Your task to perform on an android device: move an email to a new category in the gmail app Image 0: 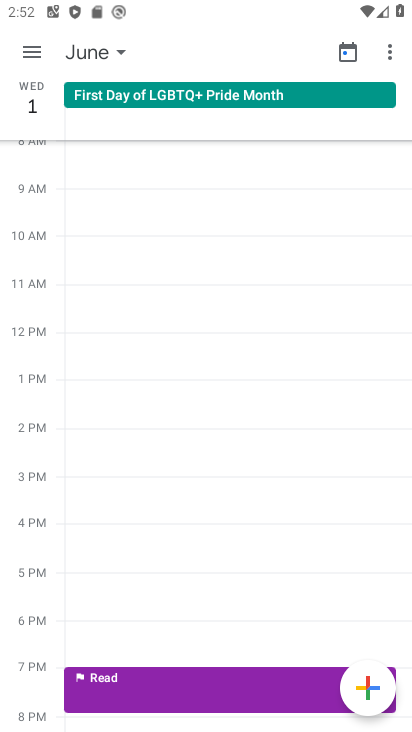
Step 0: press home button
Your task to perform on an android device: move an email to a new category in the gmail app Image 1: 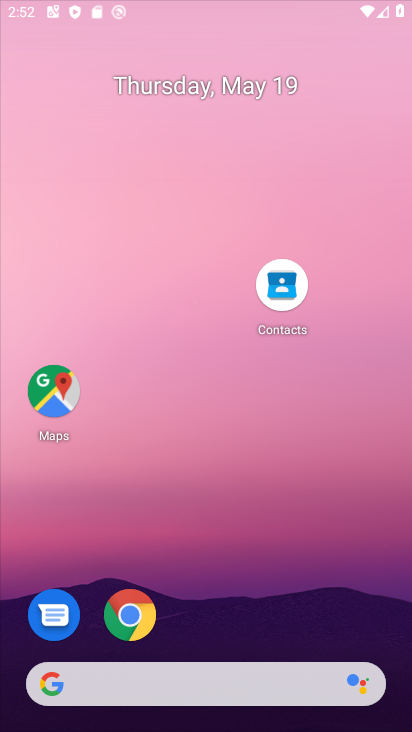
Step 1: drag from (224, 617) to (245, 165)
Your task to perform on an android device: move an email to a new category in the gmail app Image 2: 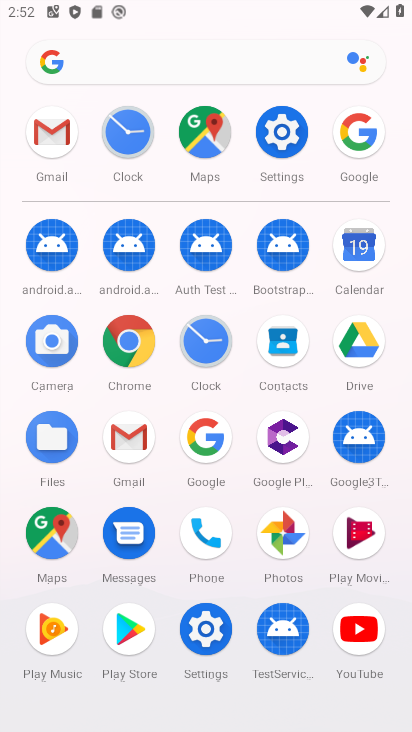
Step 2: click (133, 451)
Your task to perform on an android device: move an email to a new category in the gmail app Image 3: 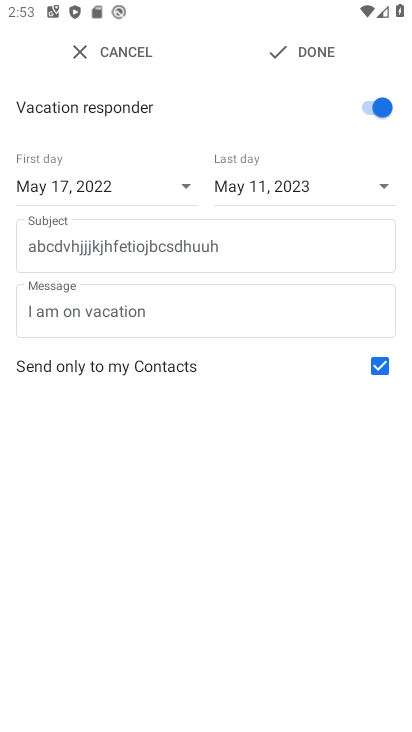
Step 3: press home button
Your task to perform on an android device: move an email to a new category in the gmail app Image 4: 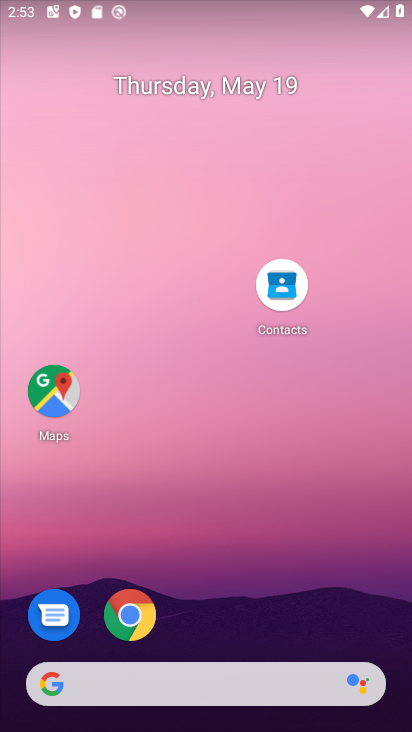
Step 4: drag from (309, 643) to (305, 118)
Your task to perform on an android device: move an email to a new category in the gmail app Image 5: 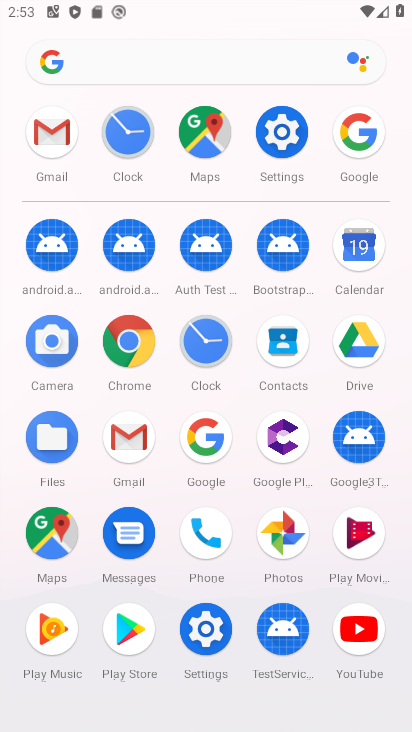
Step 5: click (133, 463)
Your task to perform on an android device: move an email to a new category in the gmail app Image 6: 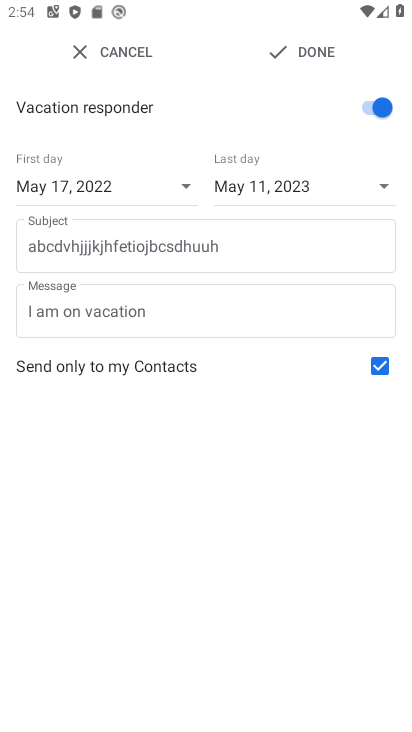
Step 6: click (92, 46)
Your task to perform on an android device: move an email to a new category in the gmail app Image 7: 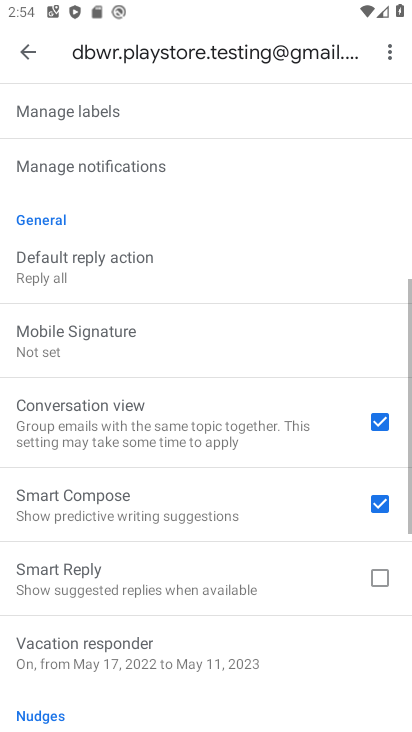
Step 7: click (20, 63)
Your task to perform on an android device: move an email to a new category in the gmail app Image 8: 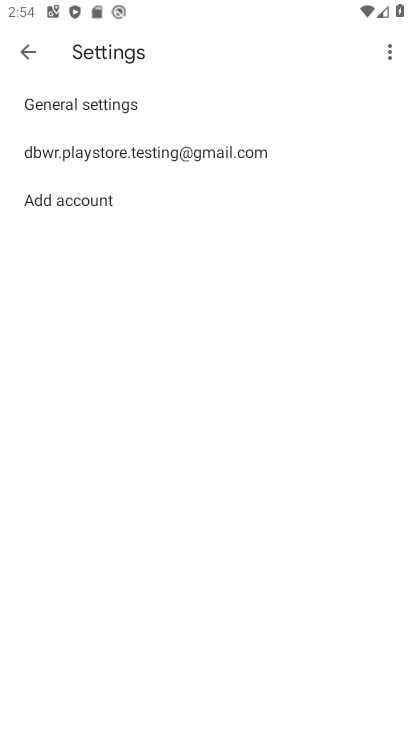
Step 8: click (31, 55)
Your task to perform on an android device: move an email to a new category in the gmail app Image 9: 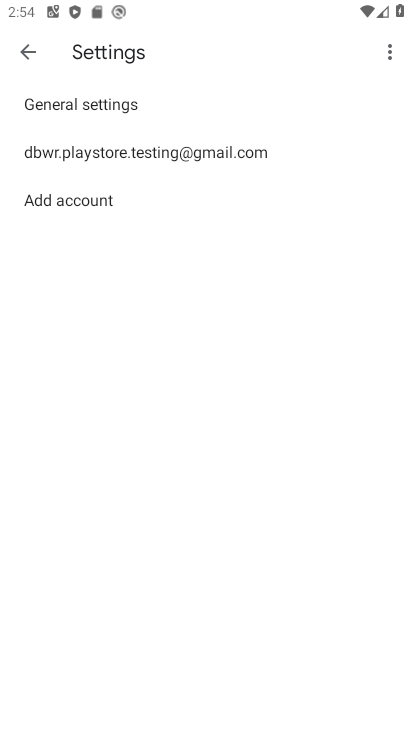
Step 9: click (31, 55)
Your task to perform on an android device: move an email to a new category in the gmail app Image 10: 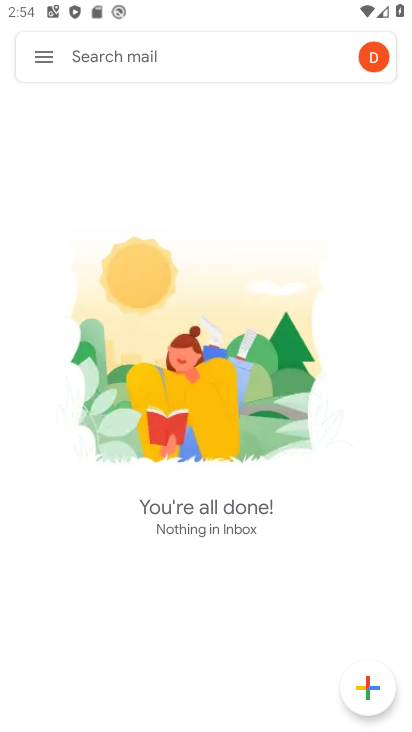
Step 10: click (42, 71)
Your task to perform on an android device: move an email to a new category in the gmail app Image 11: 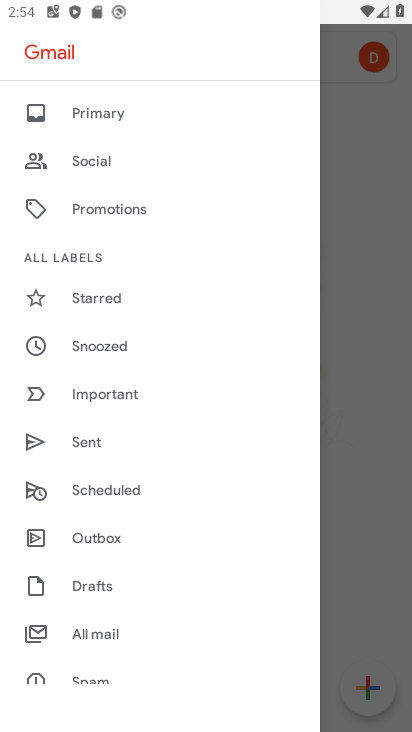
Step 11: click (106, 633)
Your task to perform on an android device: move an email to a new category in the gmail app Image 12: 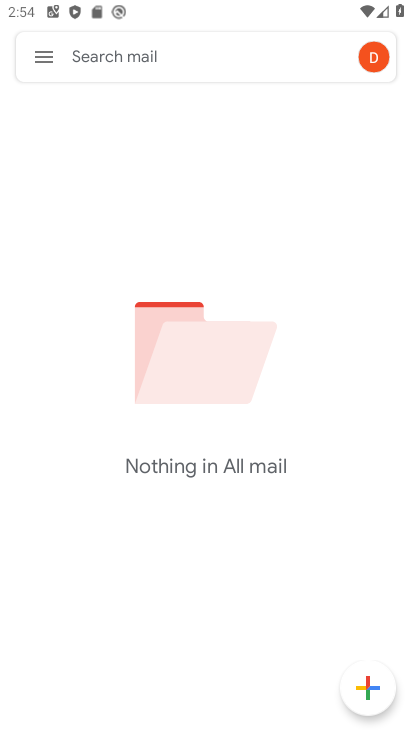
Step 12: task complete